Your task to perform on an android device: delete a single message in the gmail app Image 0: 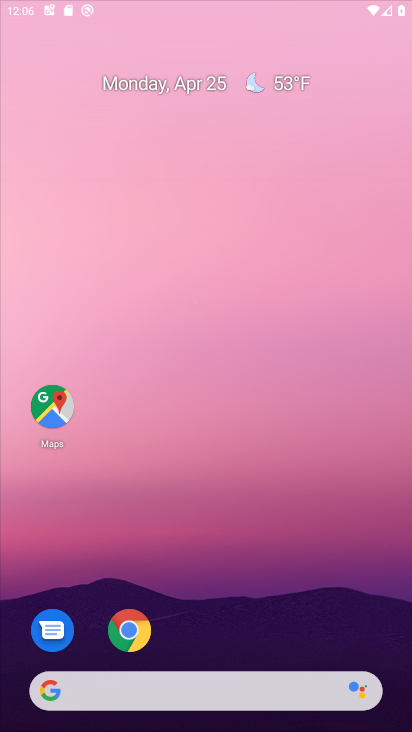
Step 0: click (224, 197)
Your task to perform on an android device: delete a single message in the gmail app Image 1: 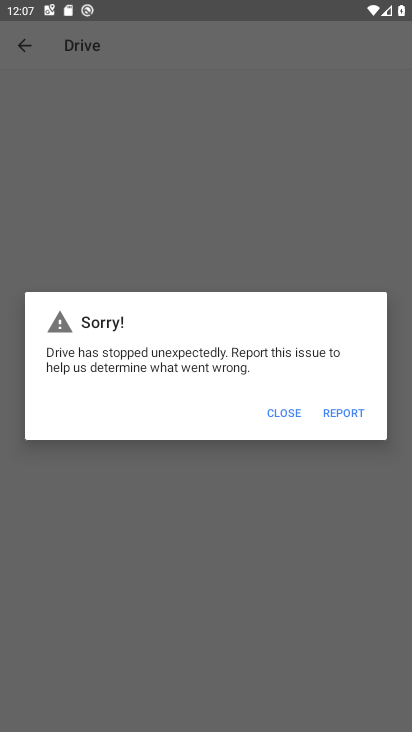
Step 1: press home button
Your task to perform on an android device: delete a single message in the gmail app Image 2: 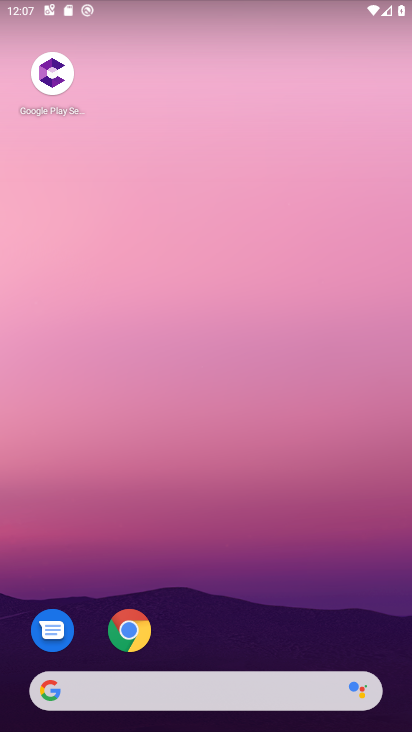
Step 2: drag from (187, 589) to (241, 177)
Your task to perform on an android device: delete a single message in the gmail app Image 3: 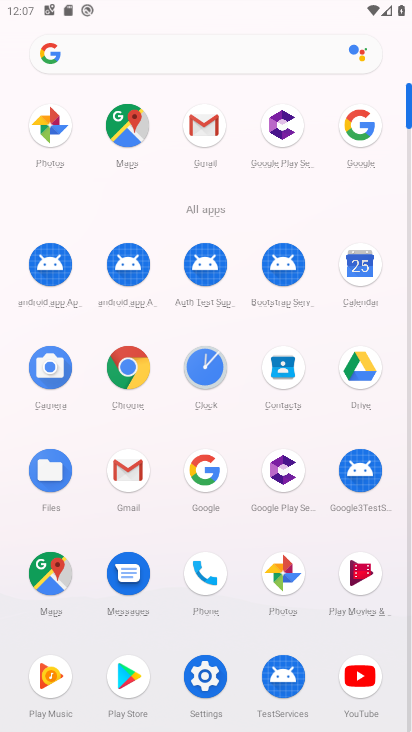
Step 3: click (131, 470)
Your task to perform on an android device: delete a single message in the gmail app Image 4: 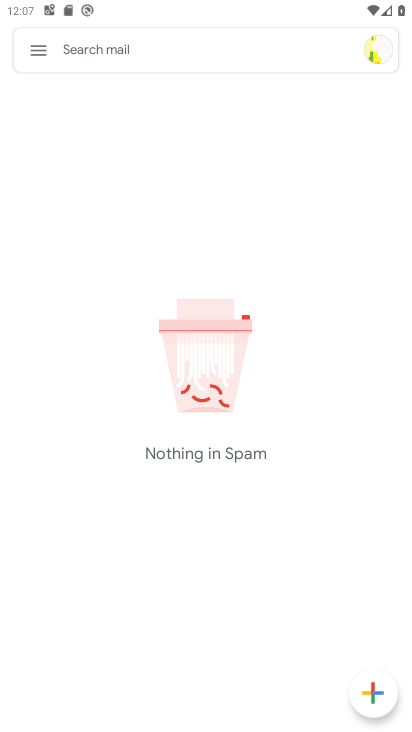
Step 4: click (40, 50)
Your task to perform on an android device: delete a single message in the gmail app Image 5: 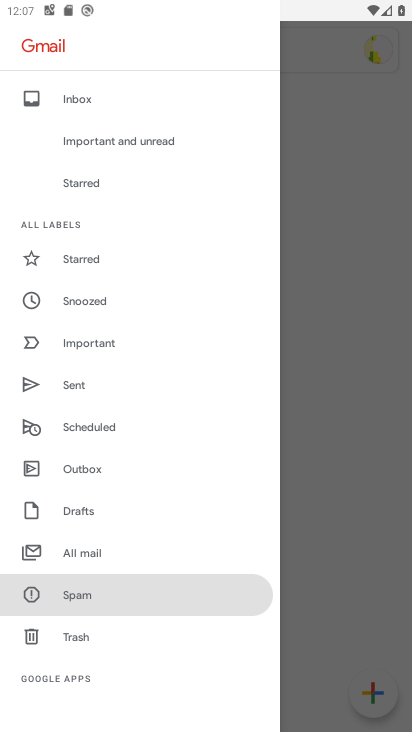
Step 5: drag from (110, 650) to (130, 109)
Your task to perform on an android device: delete a single message in the gmail app Image 6: 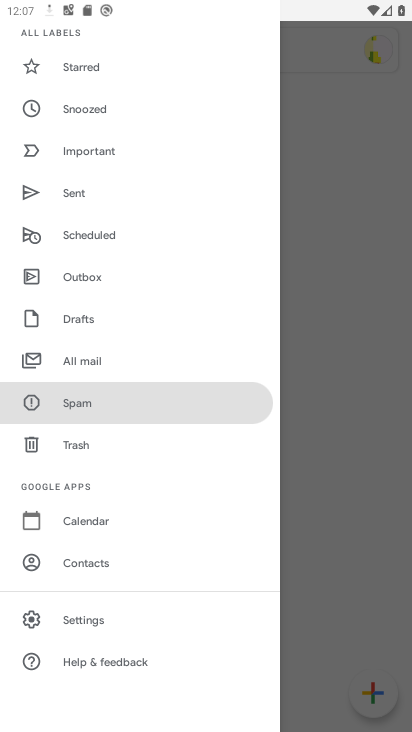
Step 6: click (109, 620)
Your task to perform on an android device: delete a single message in the gmail app Image 7: 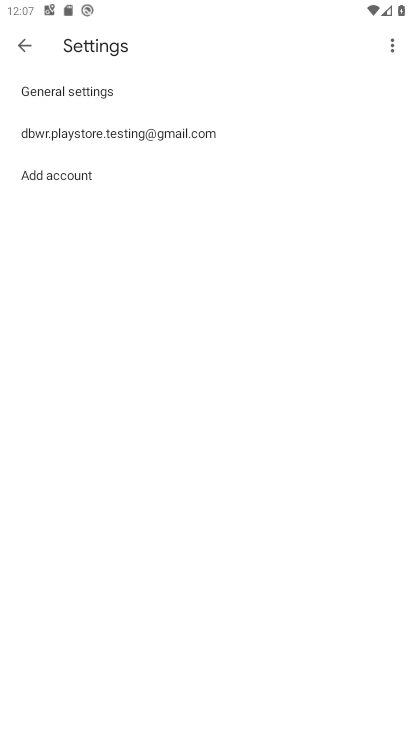
Step 7: click (7, 58)
Your task to perform on an android device: delete a single message in the gmail app Image 8: 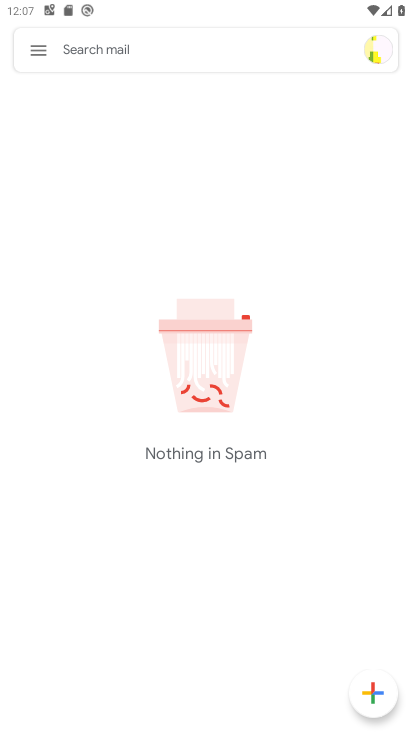
Step 8: click (36, 54)
Your task to perform on an android device: delete a single message in the gmail app Image 9: 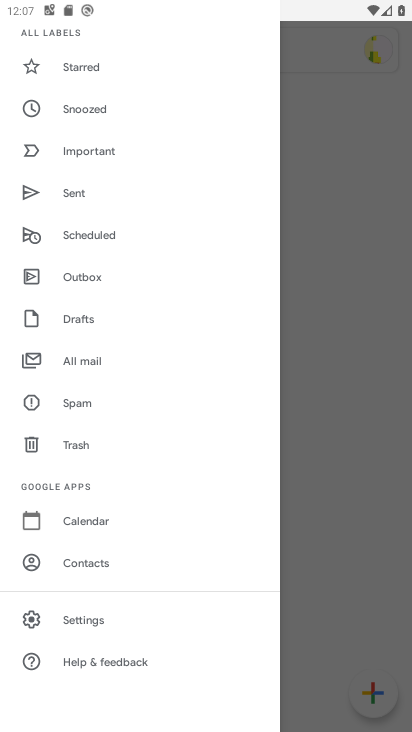
Step 9: drag from (135, 315) to (207, 694)
Your task to perform on an android device: delete a single message in the gmail app Image 10: 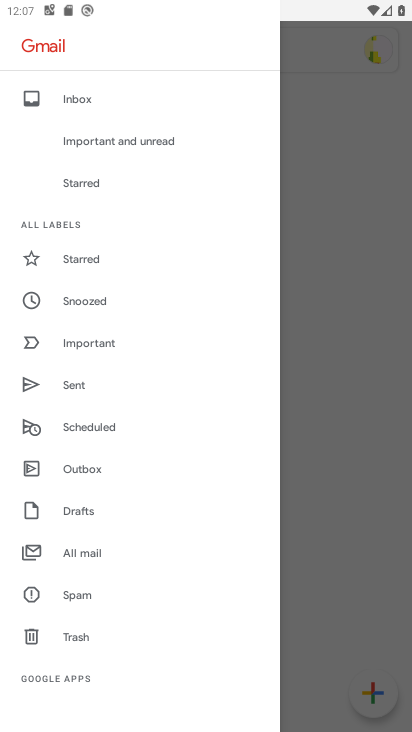
Step 10: click (96, 99)
Your task to perform on an android device: delete a single message in the gmail app Image 11: 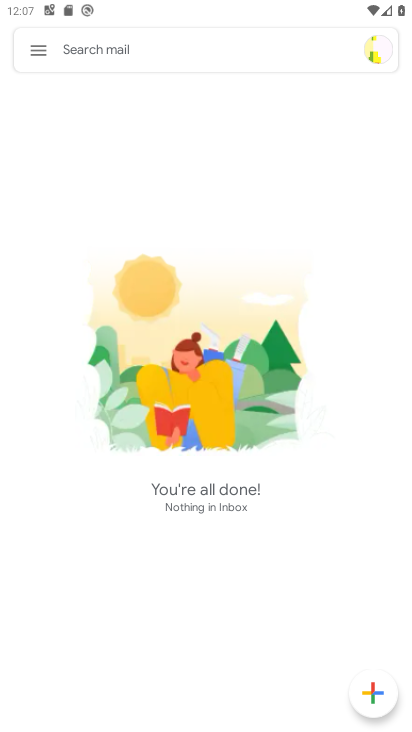
Step 11: task complete